Your task to perform on an android device: Open sound settings Image 0: 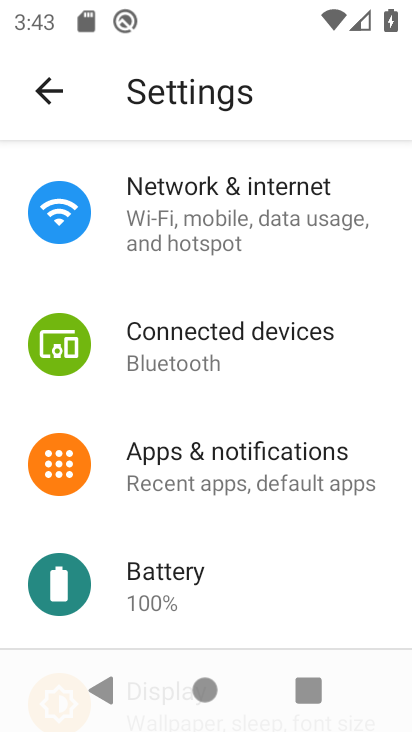
Step 0: drag from (91, 492) to (98, 211)
Your task to perform on an android device: Open sound settings Image 1: 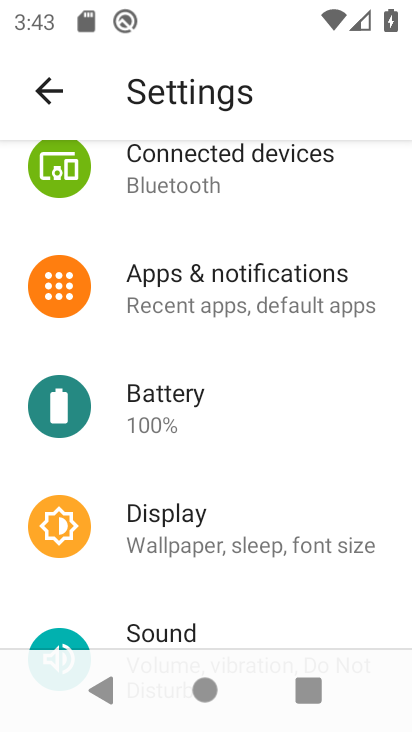
Step 1: drag from (166, 578) to (154, 221)
Your task to perform on an android device: Open sound settings Image 2: 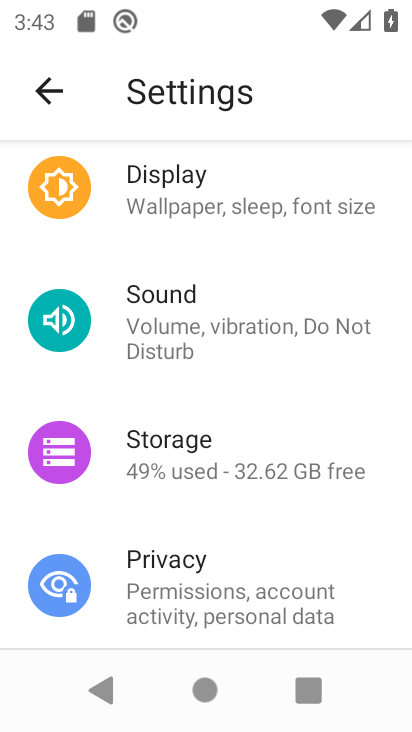
Step 2: click (212, 315)
Your task to perform on an android device: Open sound settings Image 3: 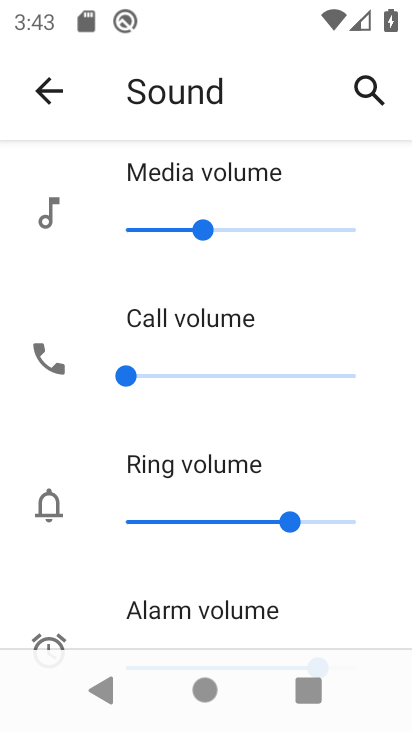
Step 3: task complete